Your task to perform on an android device: Open the phone app and click the voicemail tab. Image 0: 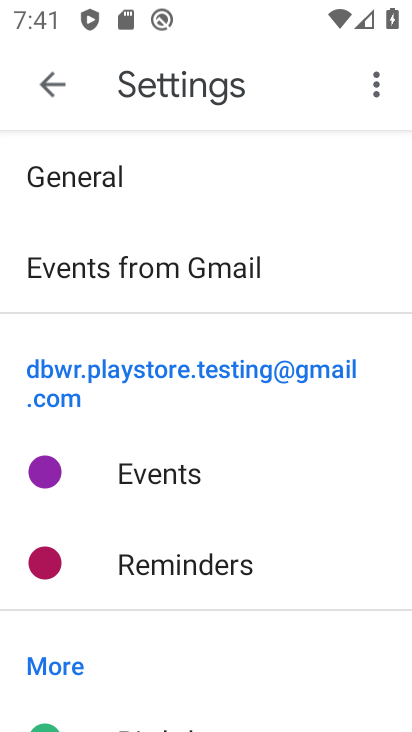
Step 0: press back button
Your task to perform on an android device: Open the phone app and click the voicemail tab. Image 1: 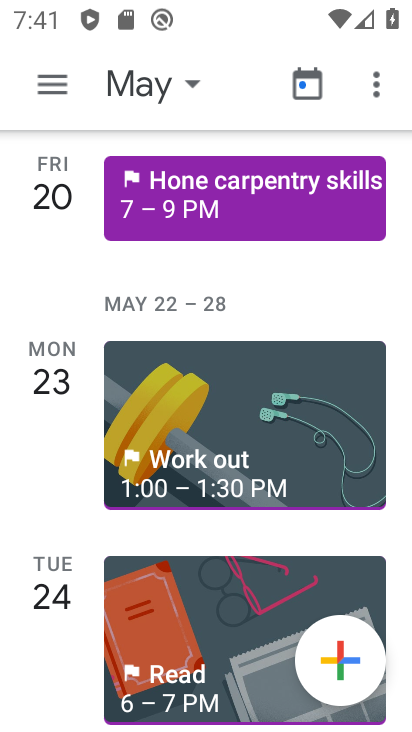
Step 1: press back button
Your task to perform on an android device: Open the phone app and click the voicemail tab. Image 2: 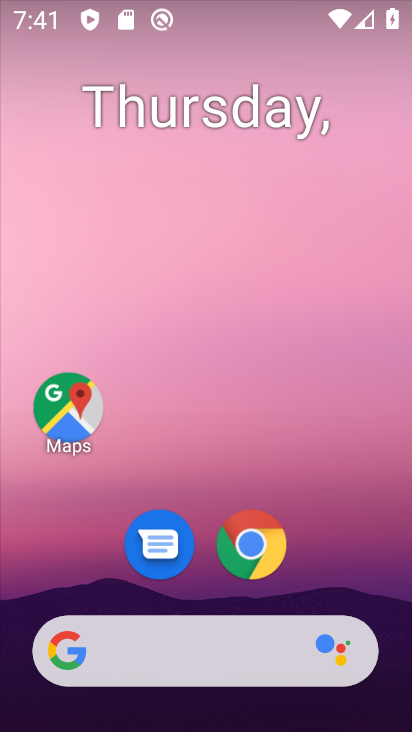
Step 2: drag from (350, 575) to (310, 176)
Your task to perform on an android device: Open the phone app and click the voicemail tab. Image 3: 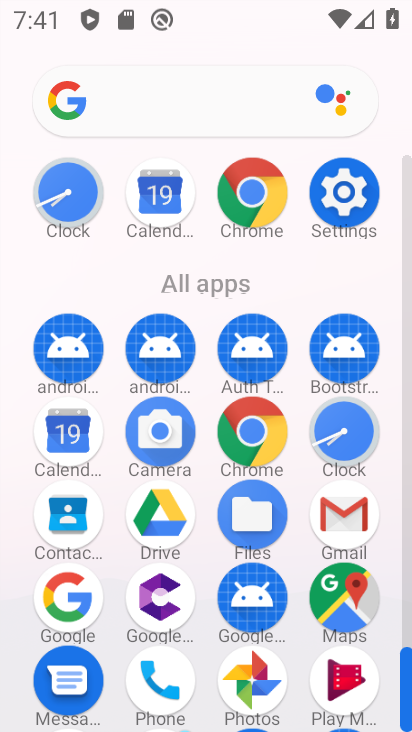
Step 3: drag from (198, 381) to (201, 206)
Your task to perform on an android device: Open the phone app and click the voicemail tab. Image 4: 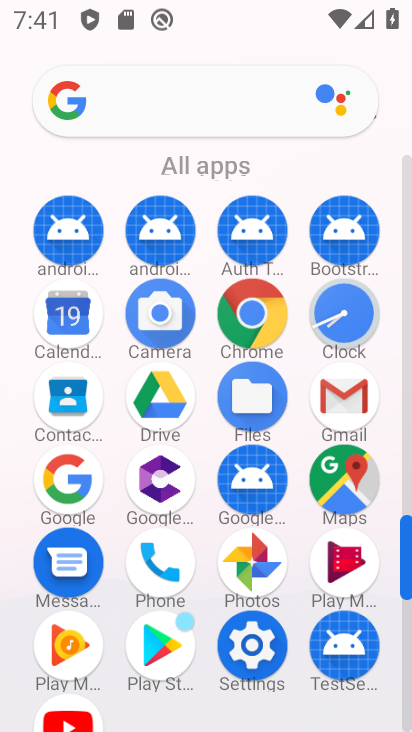
Step 4: click (156, 569)
Your task to perform on an android device: Open the phone app and click the voicemail tab. Image 5: 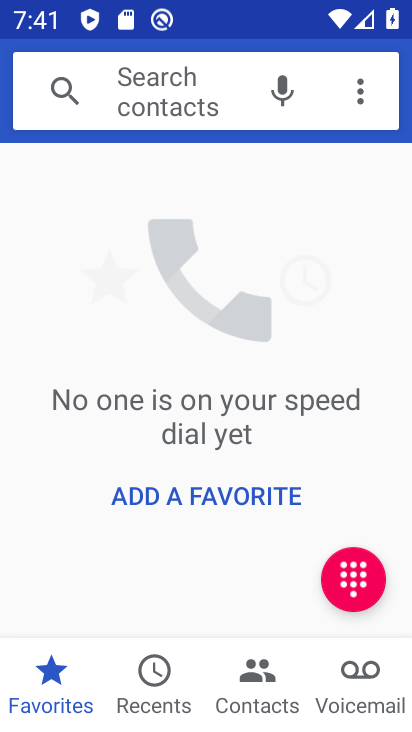
Step 5: click (358, 679)
Your task to perform on an android device: Open the phone app and click the voicemail tab. Image 6: 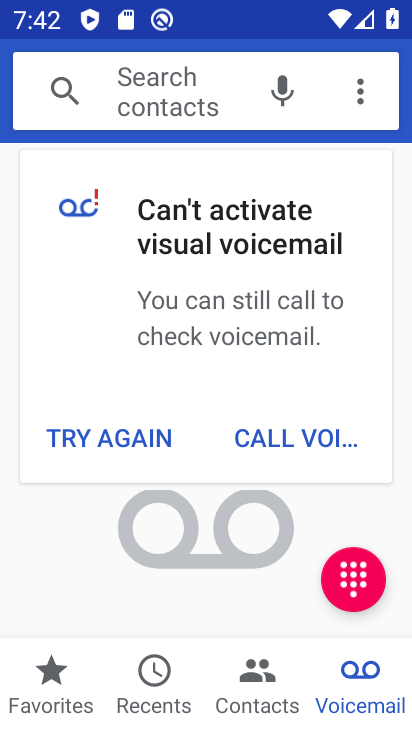
Step 6: task complete